Your task to perform on an android device: Go to privacy settings Image 0: 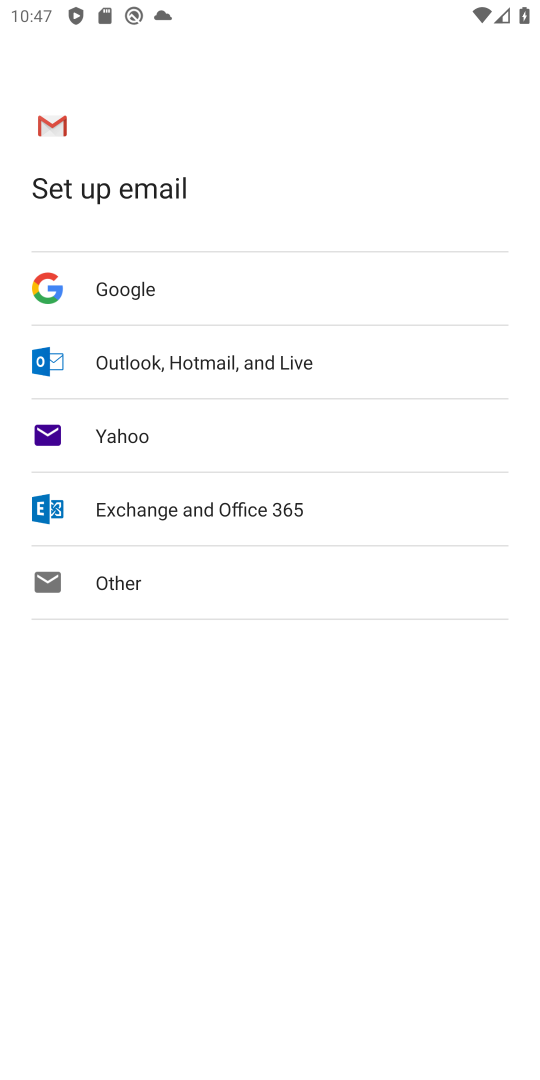
Step 0: press home button
Your task to perform on an android device: Go to privacy settings Image 1: 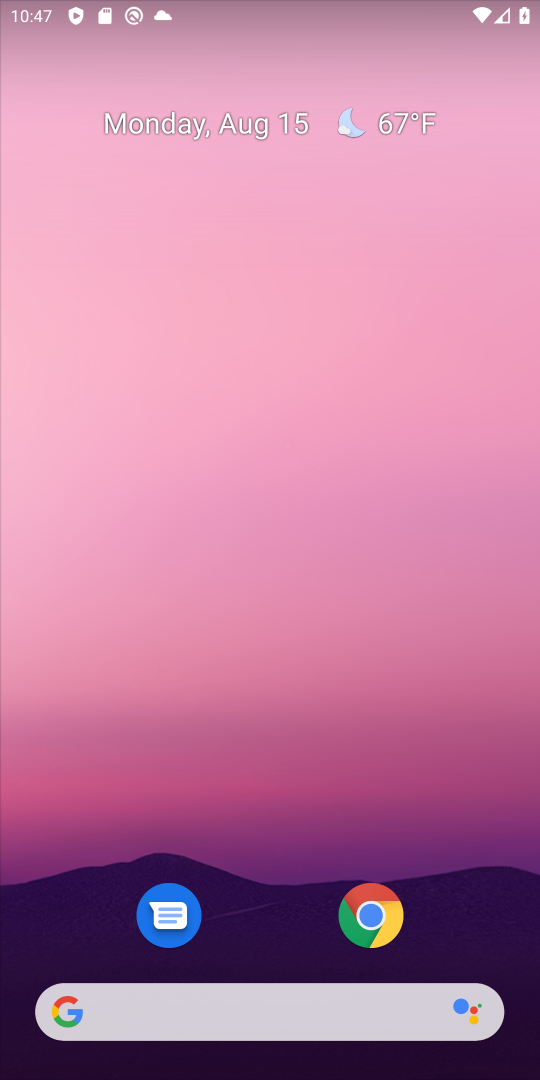
Step 1: drag from (473, 844) to (278, 54)
Your task to perform on an android device: Go to privacy settings Image 2: 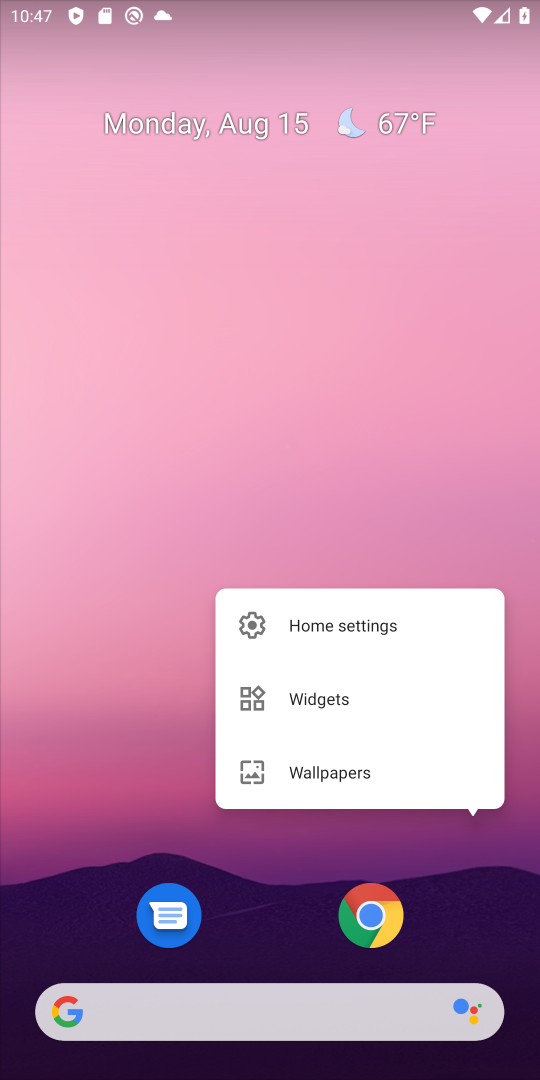
Step 2: click (355, 363)
Your task to perform on an android device: Go to privacy settings Image 3: 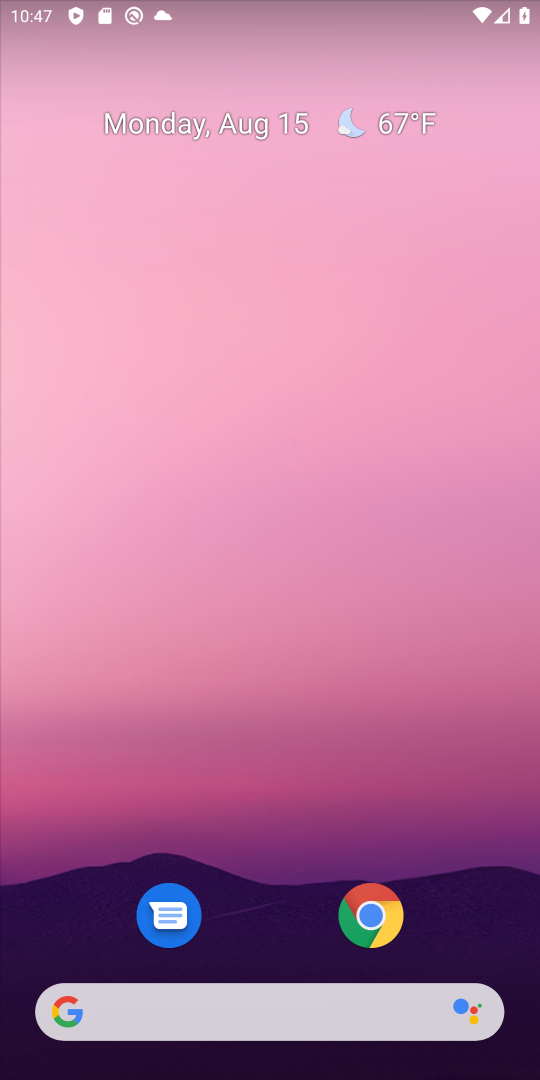
Step 3: drag from (370, 776) to (191, 247)
Your task to perform on an android device: Go to privacy settings Image 4: 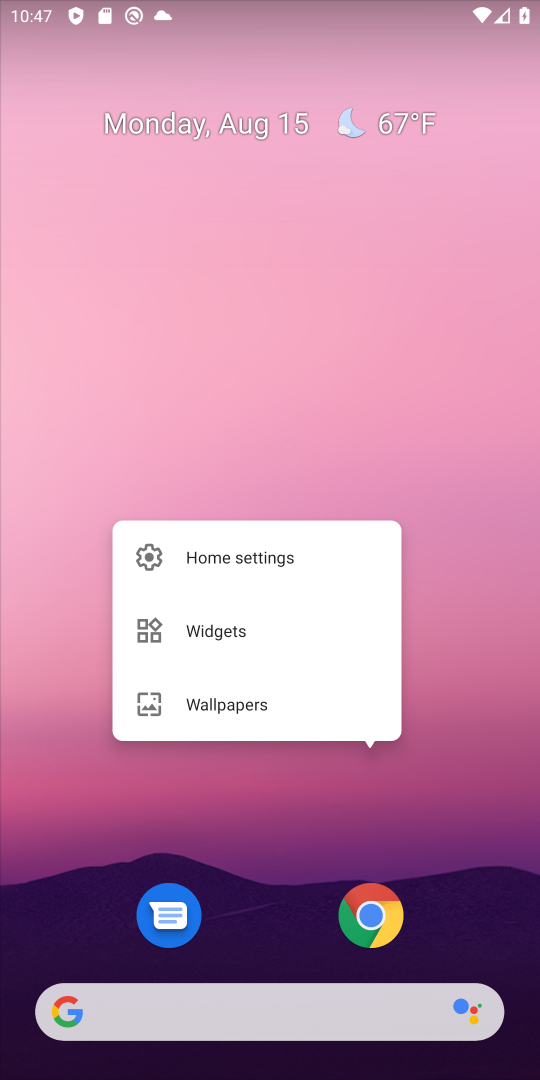
Step 4: click (501, 531)
Your task to perform on an android device: Go to privacy settings Image 5: 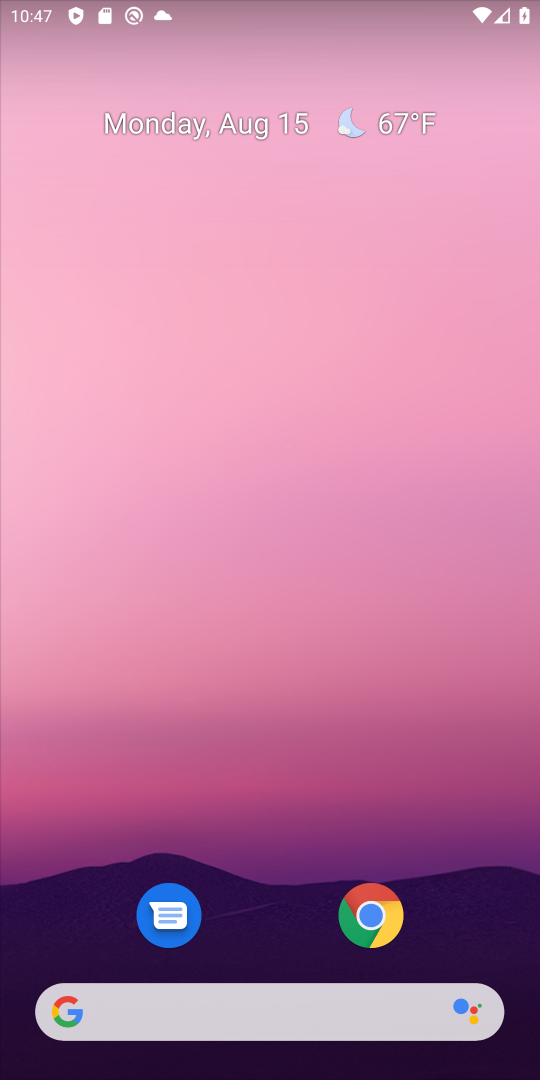
Step 5: drag from (324, 835) to (288, 237)
Your task to perform on an android device: Go to privacy settings Image 6: 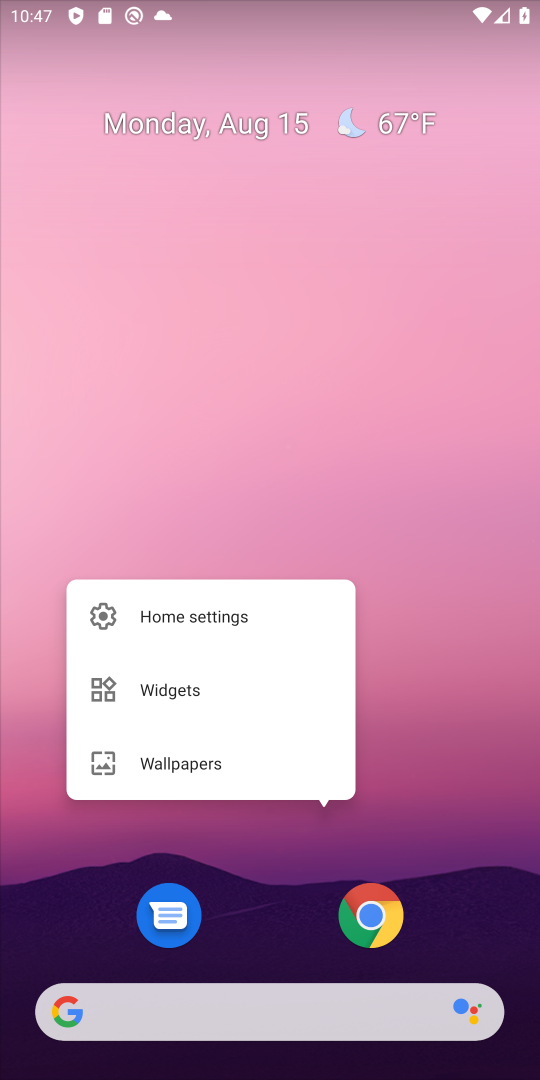
Step 6: drag from (464, 543) to (316, 1)
Your task to perform on an android device: Go to privacy settings Image 7: 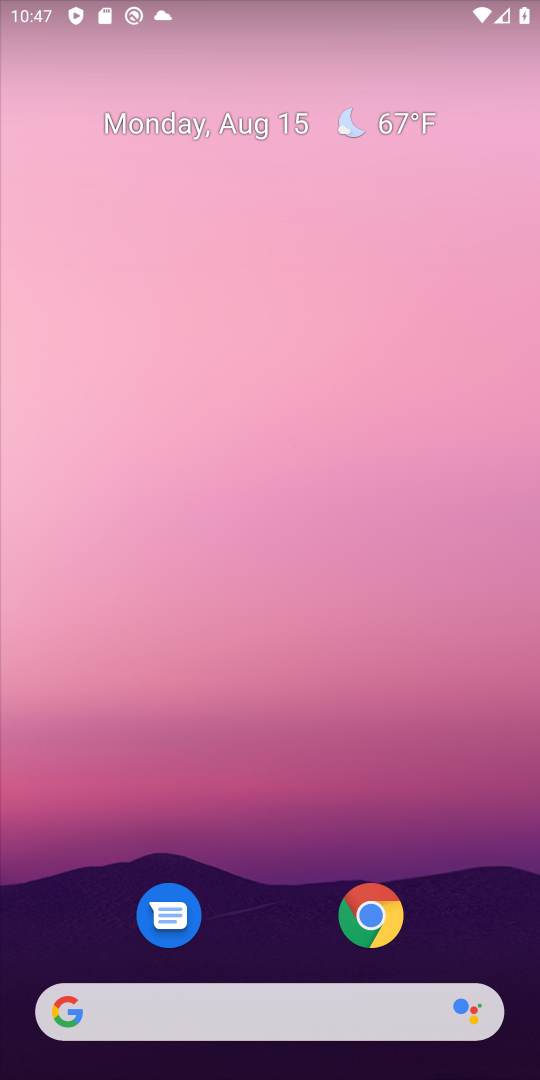
Step 7: drag from (462, 895) to (368, 202)
Your task to perform on an android device: Go to privacy settings Image 8: 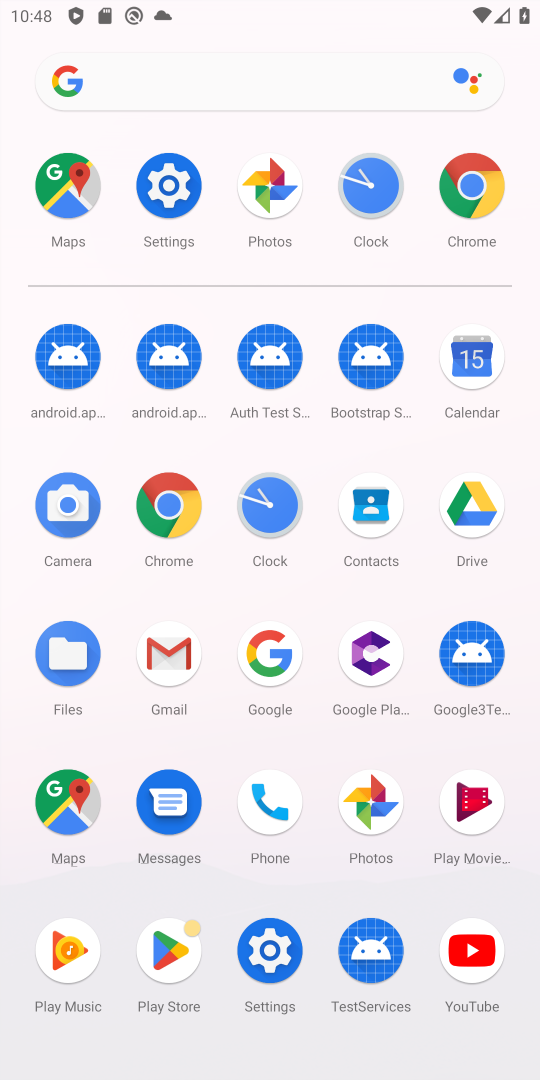
Step 8: click (278, 947)
Your task to perform on an android device: Go to privacy settings Image 9: 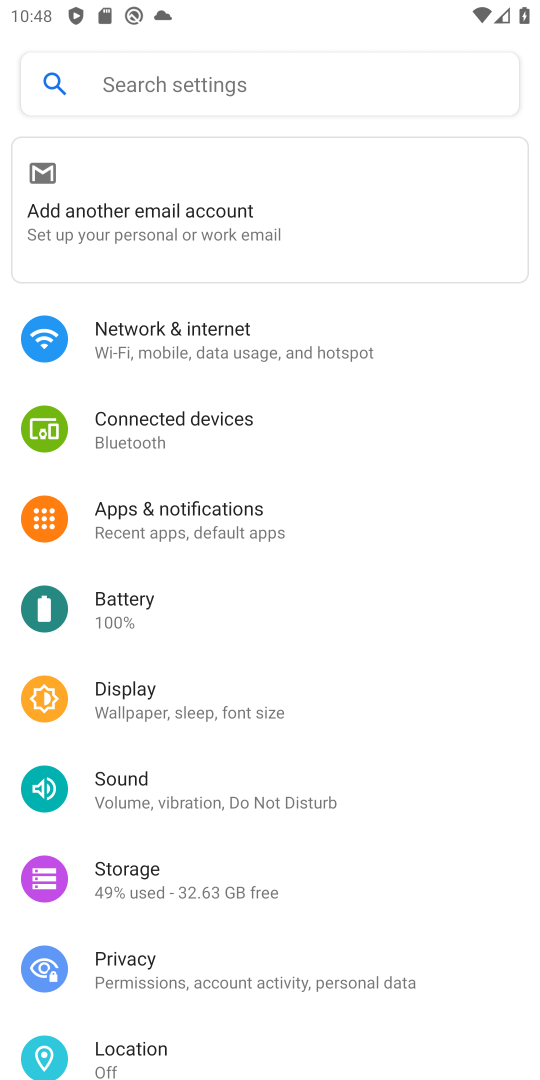
Step 9: click (146, 953)
Your task to perform on an android device: Go to privacy settings Image 10: 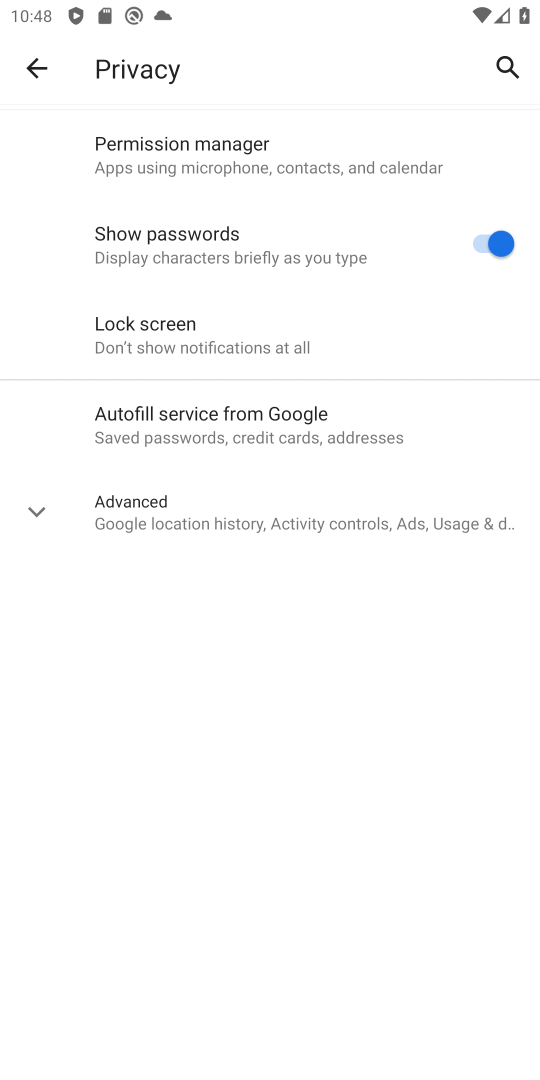
Step 10: task complete